Your task to perform on an android device: turn off translation in the chrome app Image 0: 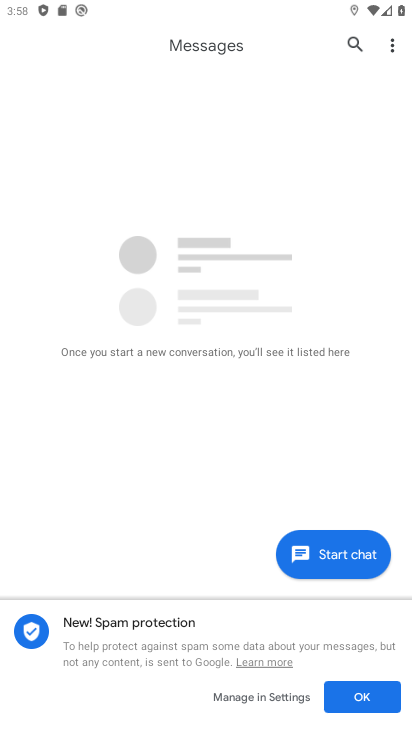
Step 0: press home button
Your task to perform on an android device: turn off translation in the chrome app Image 1: 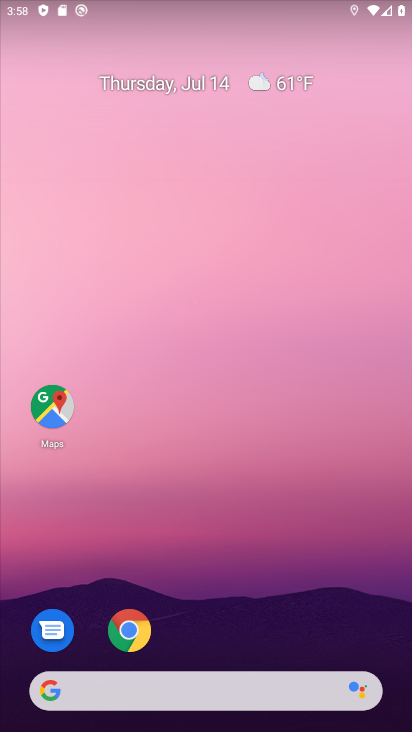
Step 1: click (131, 634)
Your task to perform on an android device: turn off translation in the chrome app Image 2: 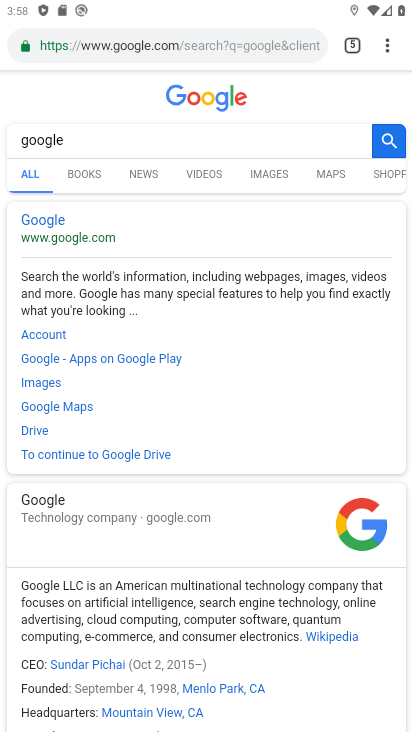
Step 2: click (396, 57)
Your task to perform on an android device: turn off translation in the chrome app Image 3: 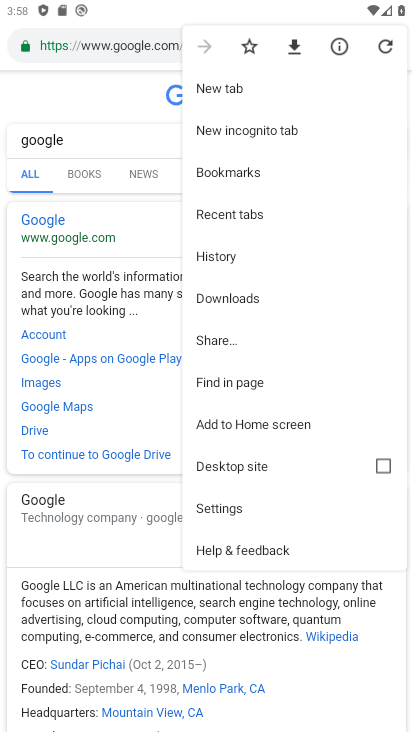
Step 3: click (241, 510)
Your task to perform on an android device: turn off translation in the chrome app Image 4: 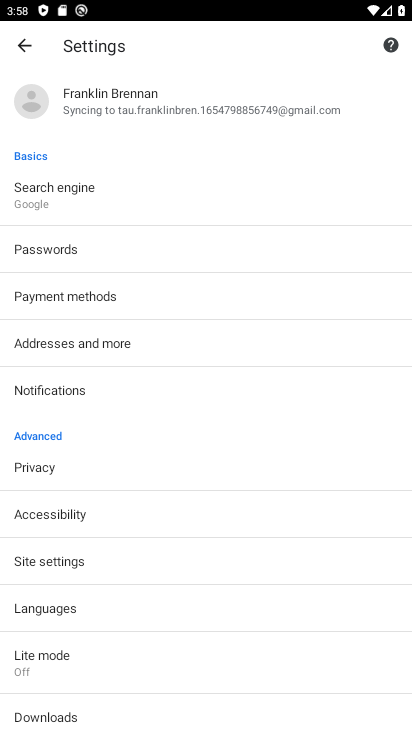
Step 4: click (113, 601)
Your task to perform on an android device: turn off translation in the chrome app Image 5: 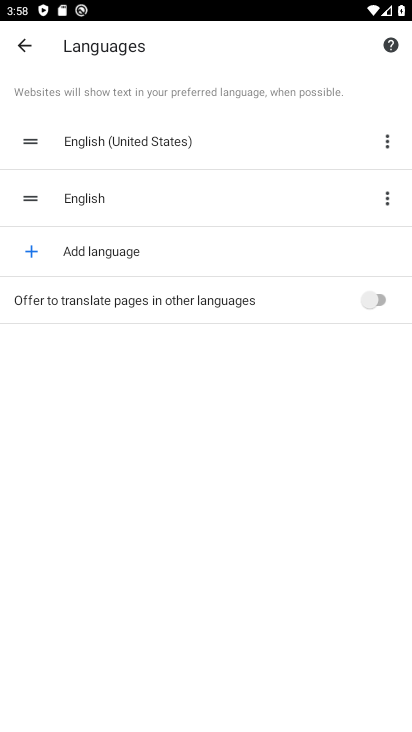
Step 5: task complete